Your task to perform on an android device: Open the Play Movies app and select the watchlist tab. Image 0: 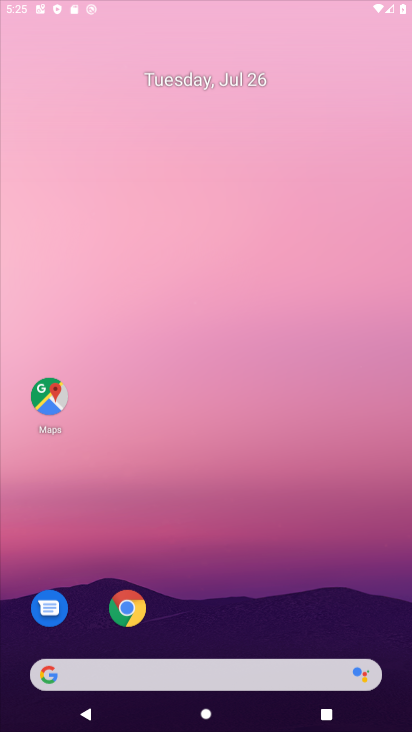
Step 0: press home button
Your task to perform on an android device: Open the Play Movies app and select the watchlist tab. Image 1: 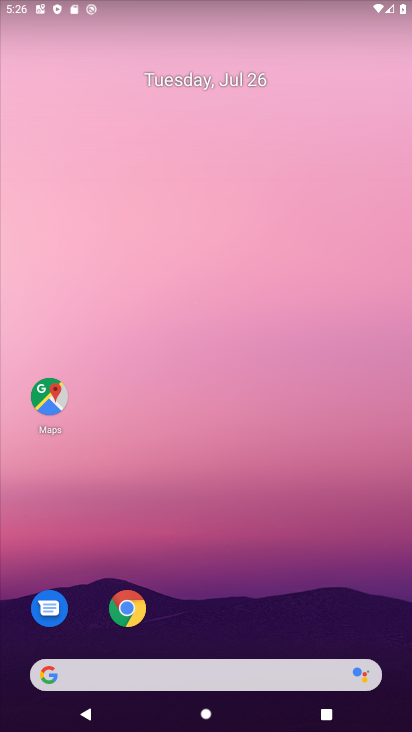
Step 1: drag from (223, 644) to (186, 3)
Your task to perform on an android device: Open the Play Movies app and select the watchlist tab. Image 2: 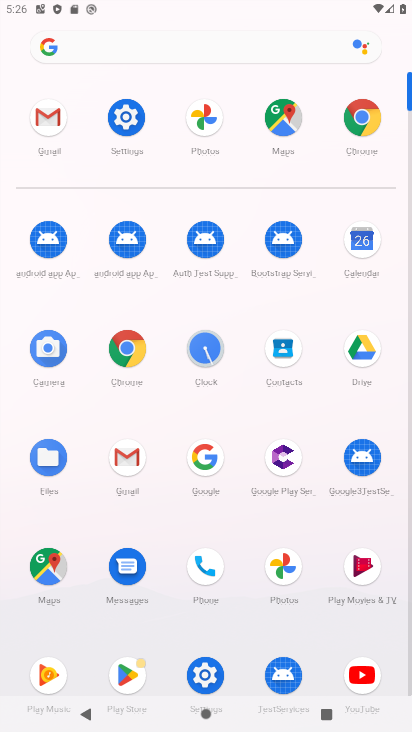
Step 2: click (361, 566)
Your task to perform on an android device: Open the Play Movies app and select the watchlist tab. Image 3: 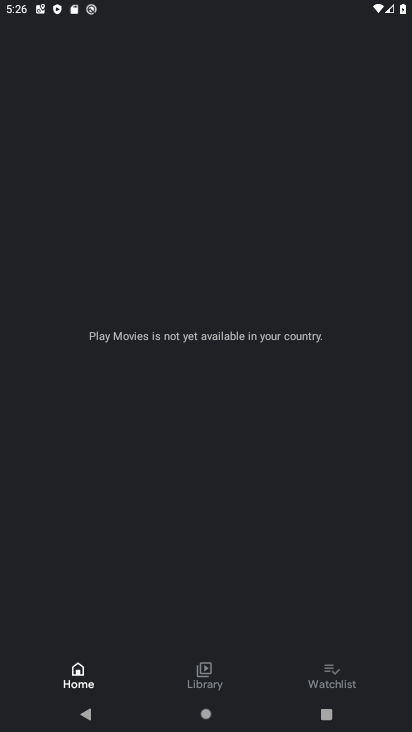
Step 3: click (329, 670)
Your task to perform on an android device: Open the Play Movies app and select the watchlist tab. Image 4: 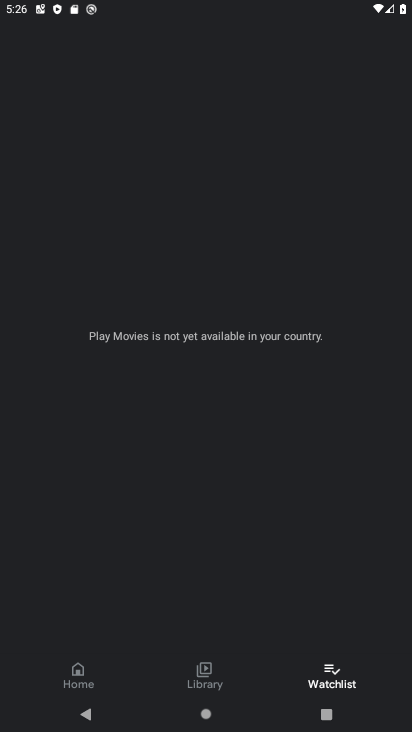
Step 4: task complete